Your task to perform on an android device: Go to Wikipedia Image 0: 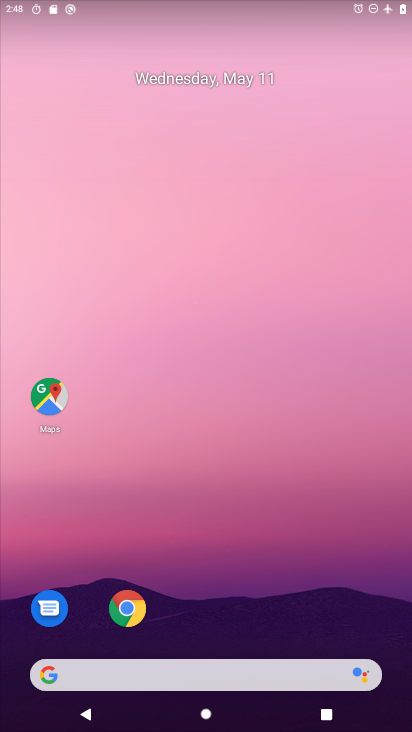
Step 0: drag from (240, 638) to (257, 185)
Your task to perform on an android device: Go to Wikipedia Image 1: 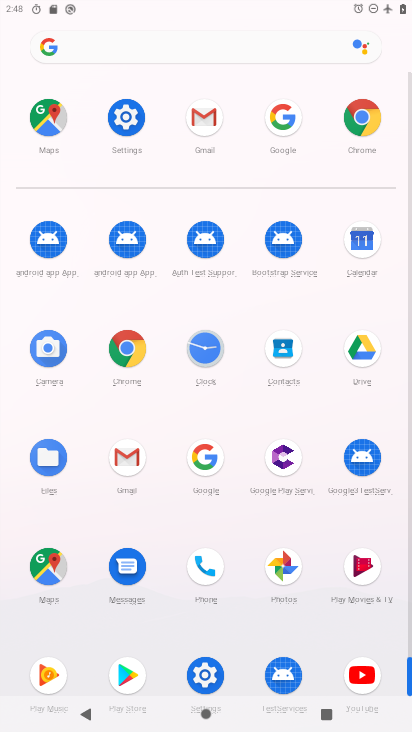
Step 1: click (360, 129)
Your task to perform on an android device: Go to Wikipedia Image 2: 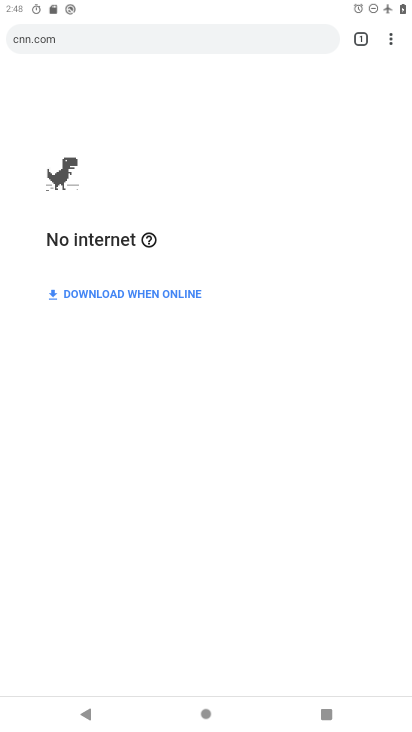
Step 2: task complete